Your task to perform on an android device: open sync settings in chrome Image 0: 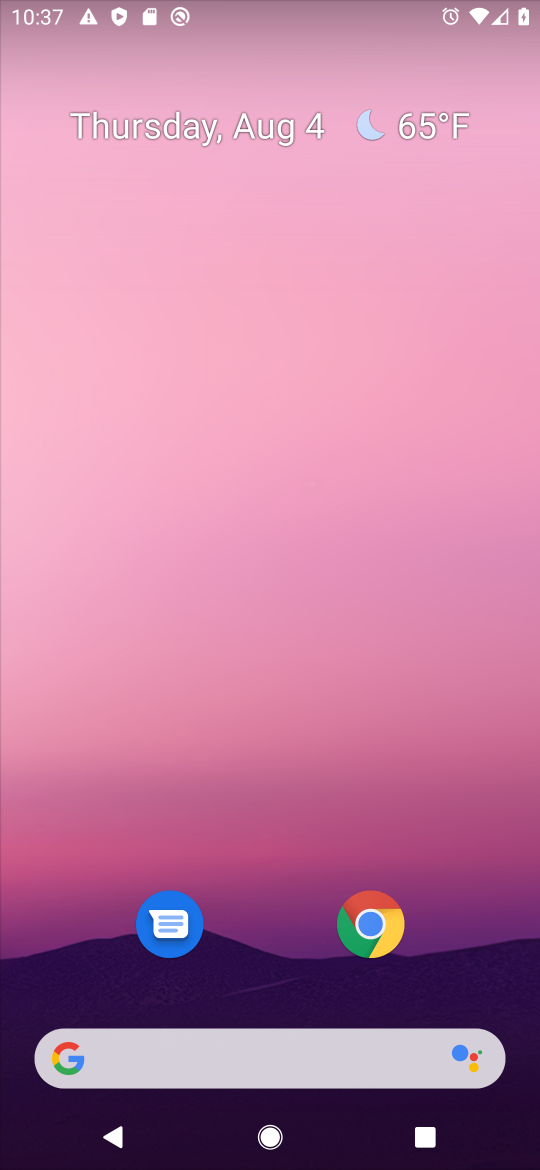
Step 0: press home button
Your task to perform on an android device: open sync settings in chrome Image 1: 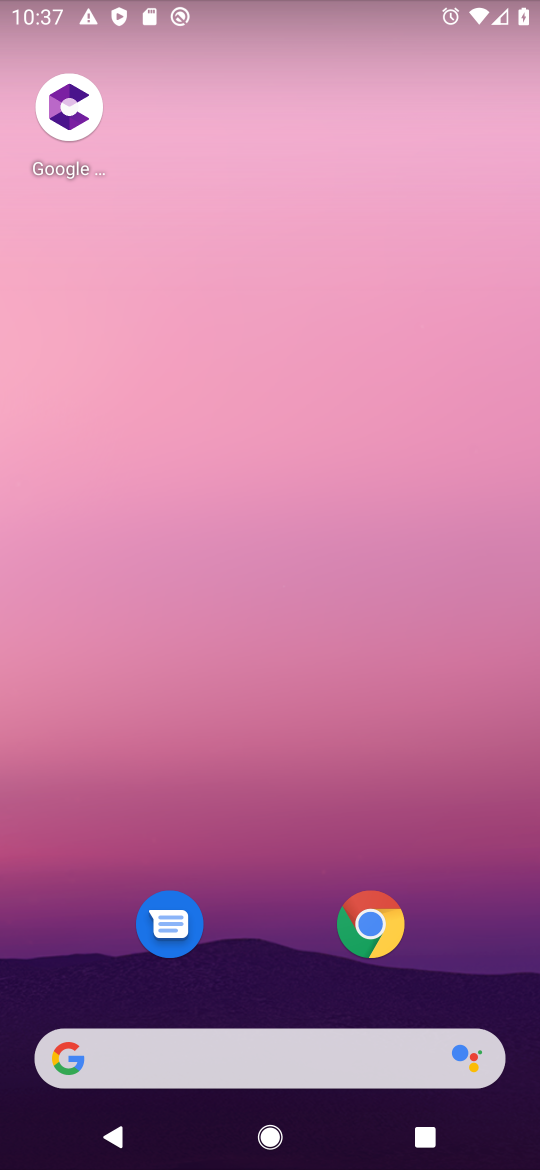
Step 1: click (382, 928)
Your task to perform on an android device: open sync settings in chrome Image 2: 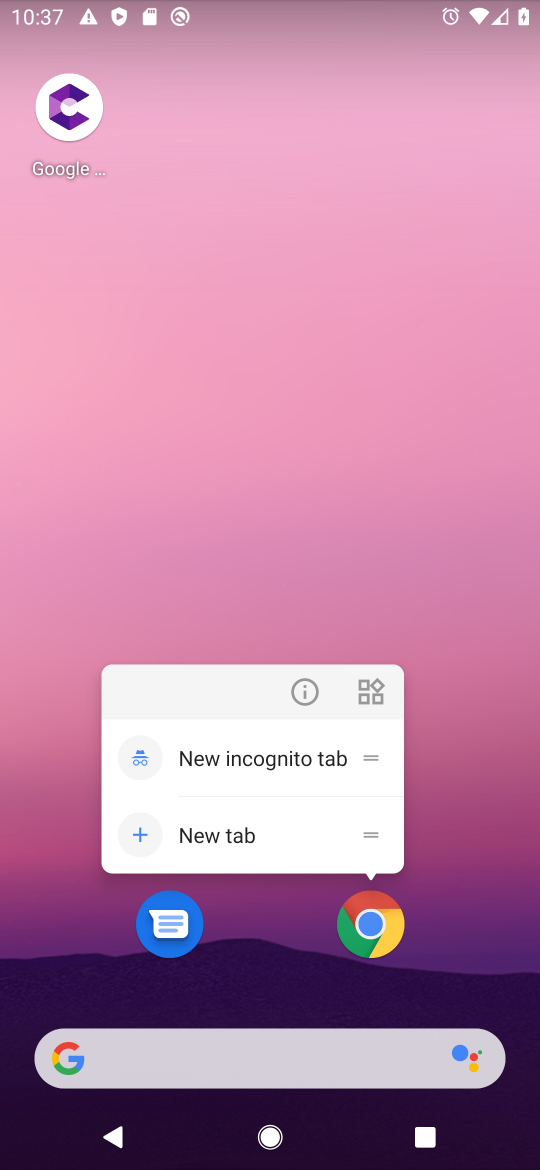
Step 2: click (382, 928)
Your task to perform on an android device: open sync settings in chrome Image 3: 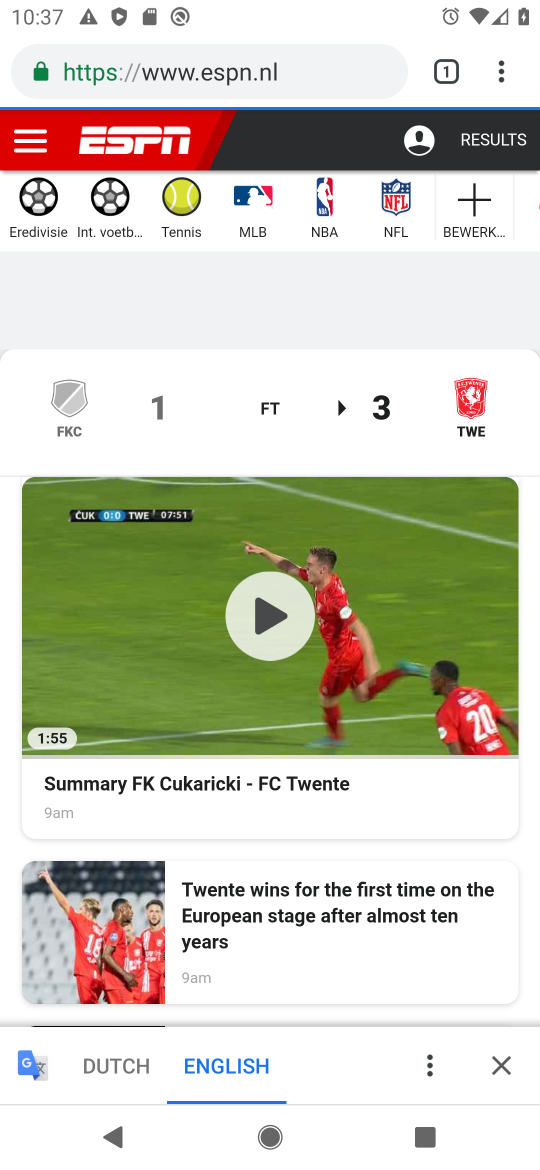
Step 3: drag from (503, 75) to (301, 868)
Your task to perform on an android device: open sync settings in chrome Image 4: 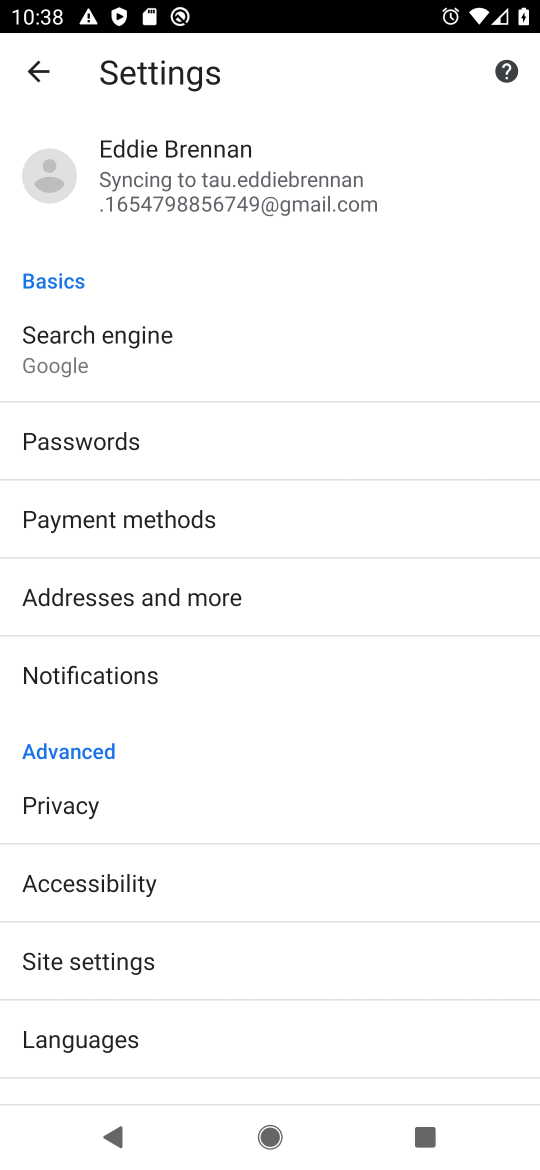
Step 4: click (306, 154)
Your task to perform on an android device: open sync settings in chrome Image 5: 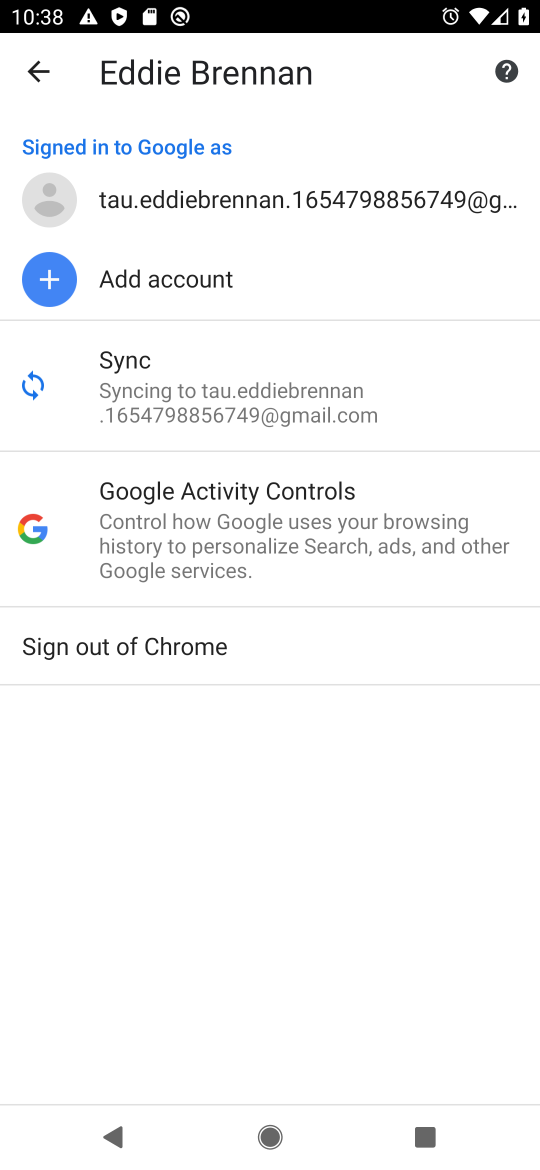
Step 5: click (178, 364)
Your task to perform on an android device: open sync settings in chrome Image 6: 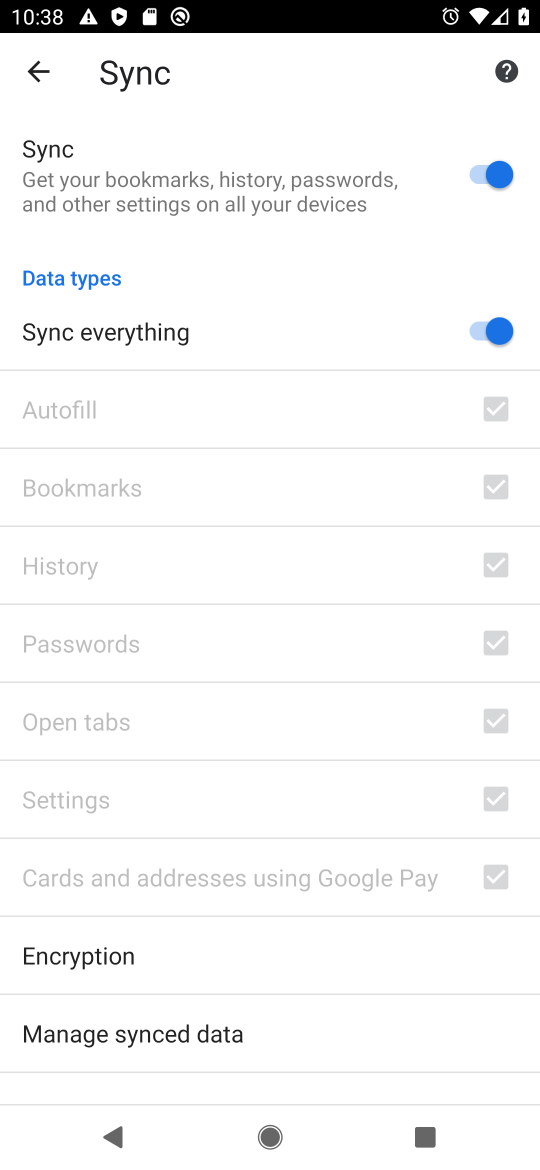
Step 6: task complete